Your task to perform on an android device: set an alarm Image 0: 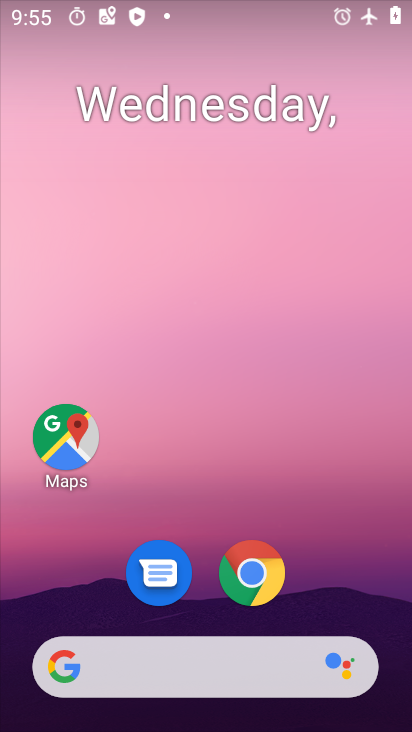
Step 0: drag from (299, 641) to (296, 281)
Your task to perform on an android device: set an alarm Image 1: 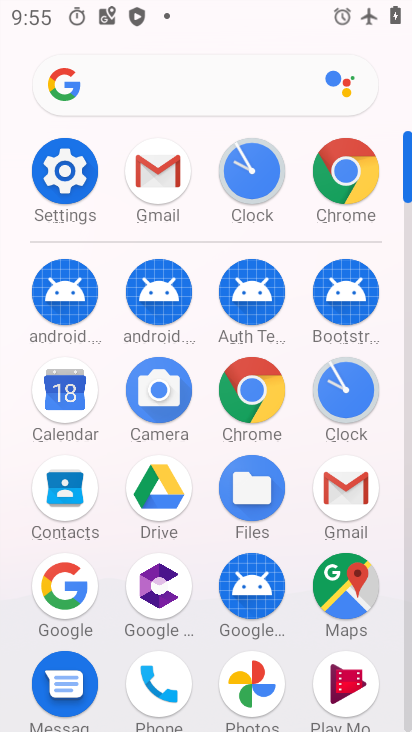
Step 1: click (351, 418)
Your task to perform on an android device: set an alarm Image 2: 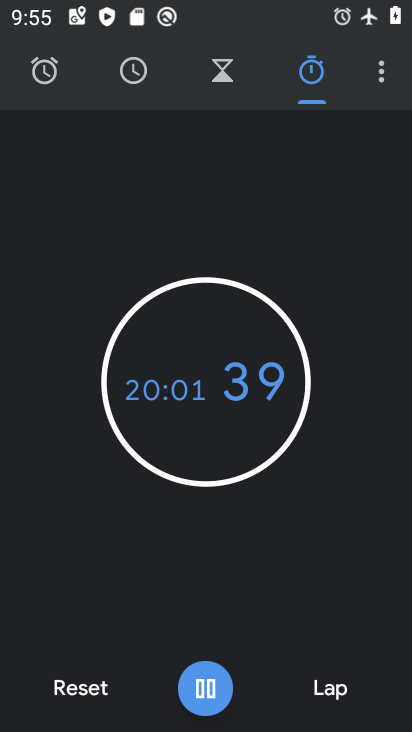
Step 2: click (54, 87)
Your task to perform on an android device: set an alarm Image 3: 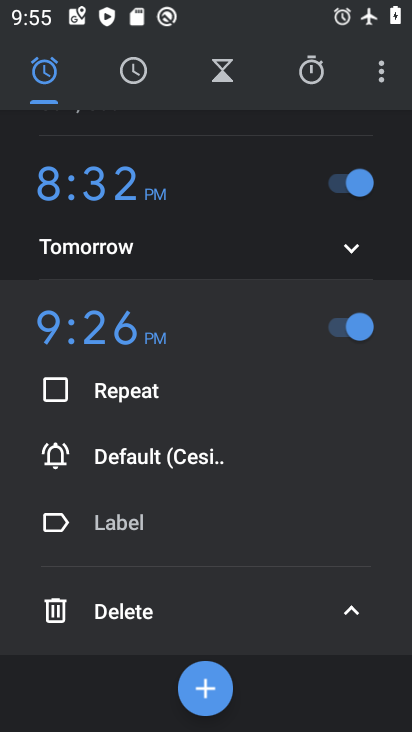
Step 3: click (207, 691)
Your task to perform on an android device: set an alarm Image 4: 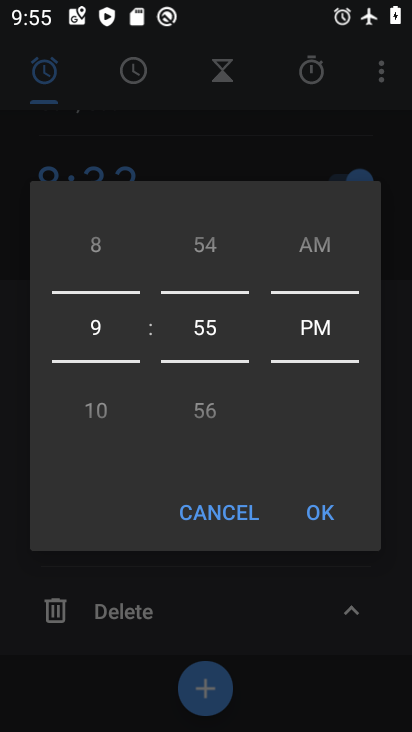
Step 4: drag from (127, 398) to (137, 262)
Your task to perform on an android device: set an alarm Image 5: 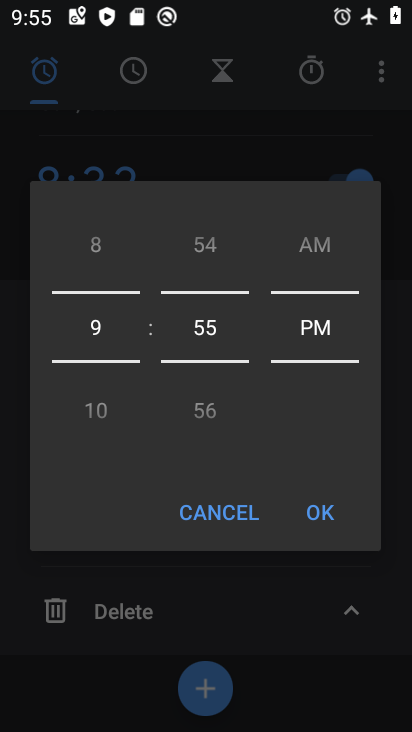
Step 5: drag from (202, 394) to (198, 320)
Your task to perform on an android device: set an alarm Image 6: 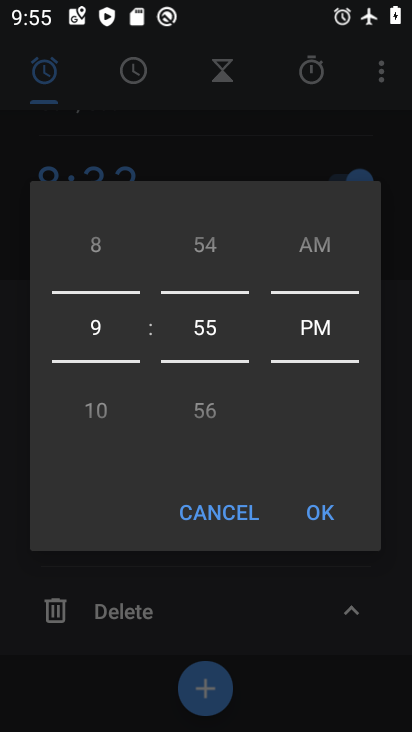
Step 6: drag from (214, 351) to (220, 267)
Your task to perform on an android device: set an alarm Image 7: 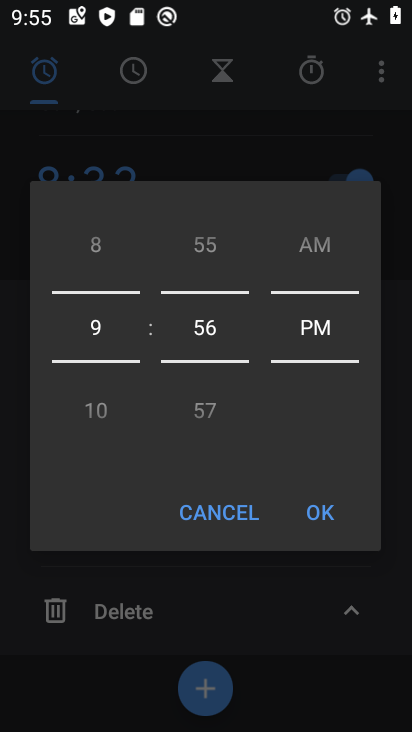
Step 7: click (312, 523)
Your task to perform on an android device: set an alarm Image 8: 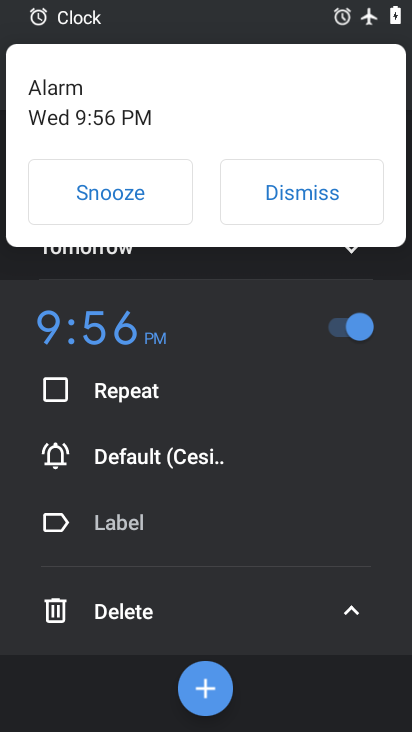
Step 8: task complete